Your task to perform on an android device: Go to Android settings Image 0: 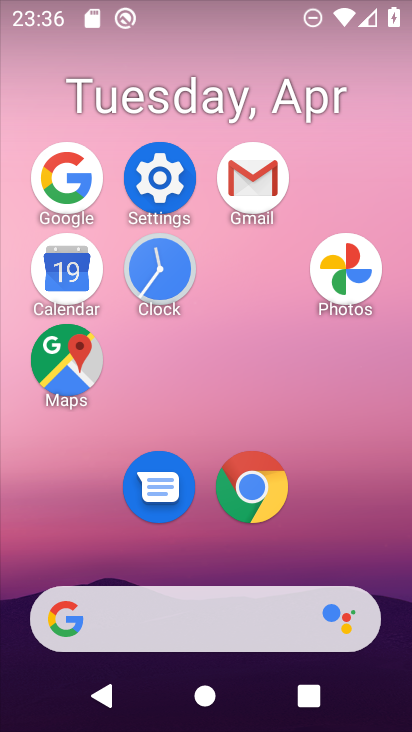
Step 0: click (157, 182)
Your task to perform on an android device: Go to Android settings Image 1: 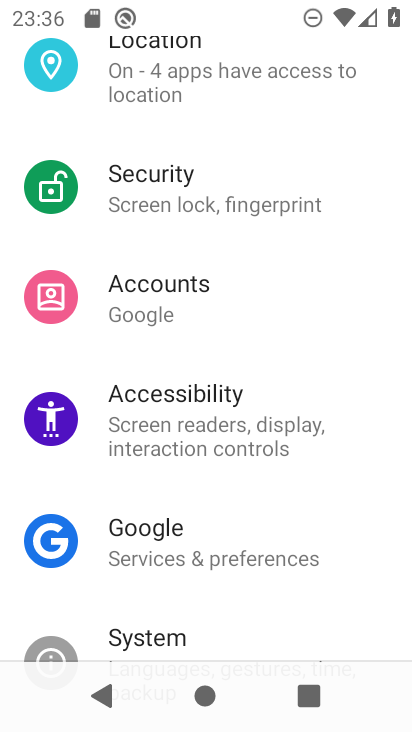
Step 1: drag from (213, 475) to (244, 149)
Your task to perform on an android device: Go to Android settings Image 2: 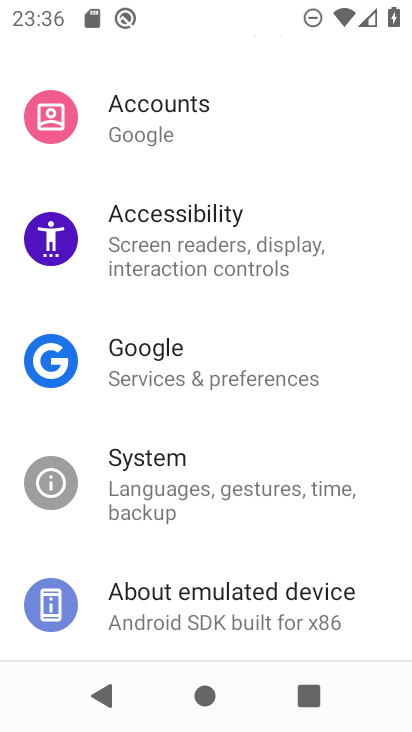
Step 2: drag from (221, 495) to (234, 203)
Your task to perform on an android device: Go to Android settings Image 3: 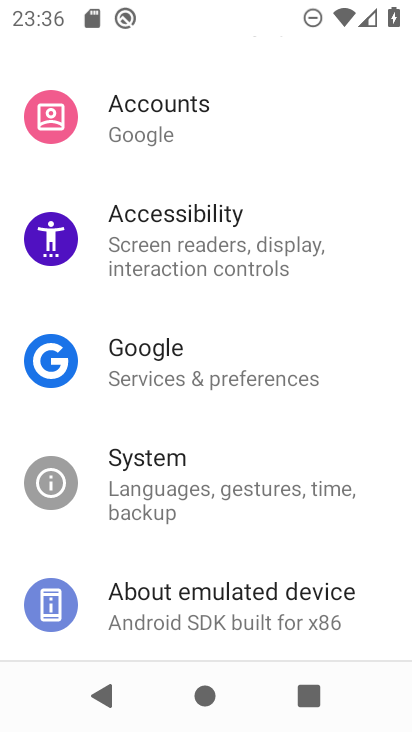
Step 3: click (219, 619)
Your task to perform on an android device: Go to Android settings Image 4: 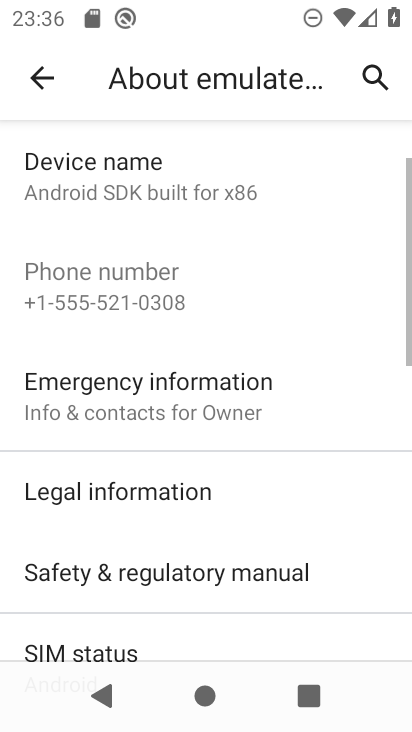
Step 4: task complete